Your task to perform on an android device: Do I have any events tomorrow? Image 0: 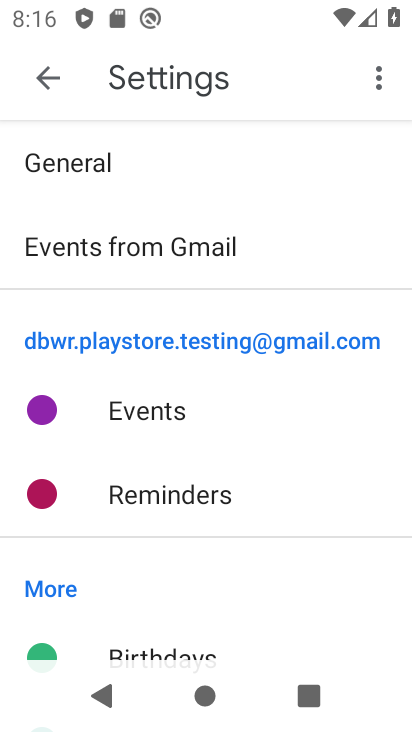
Step 0: press home button
Your task to perform on an android device: Do I have any events tomorrow? Image 1: 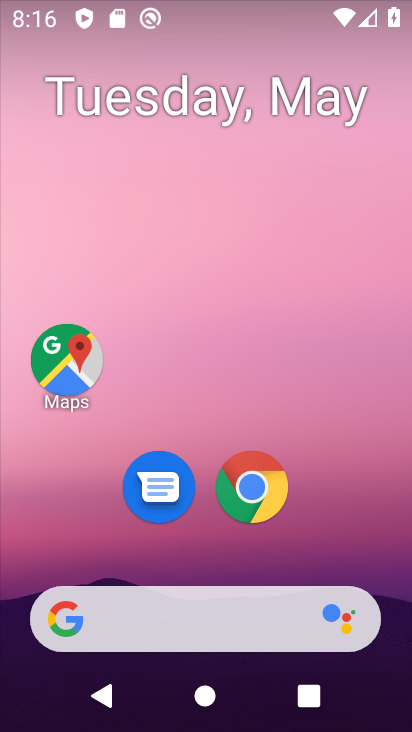
Step 1: drag from (349, 557) to (349, 73)
Your task to perform on an android device: Do I have any events tomorrow? Image 2: 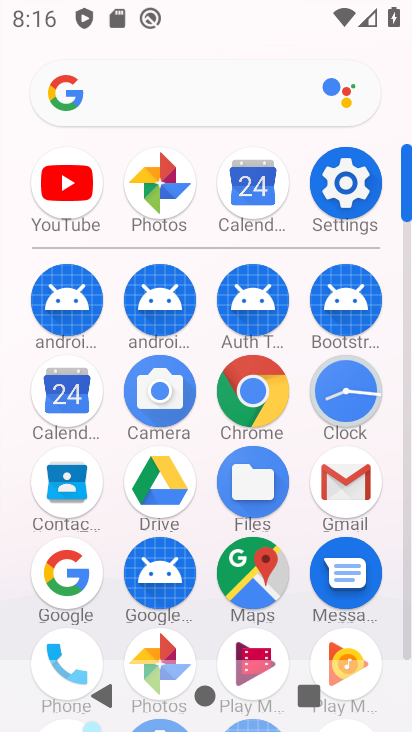
Step 2: click (250, 192)
Your task to perform on an android device: Do I have any events tomorrow? Image 3: 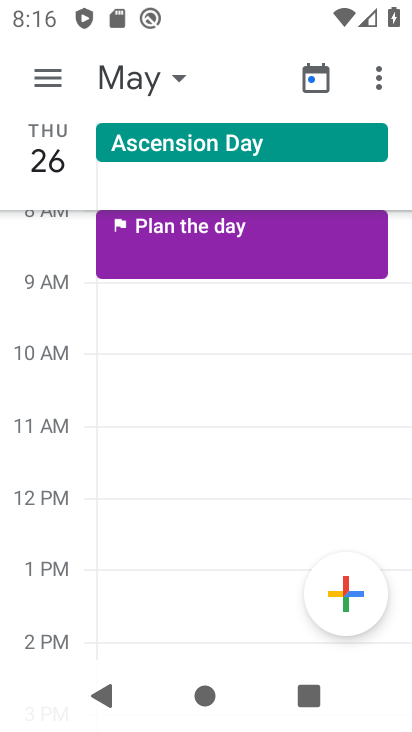
Step 3: click (147, 71)
Your task to perform on an android device: Do I have any events tomorrow? Image 4: 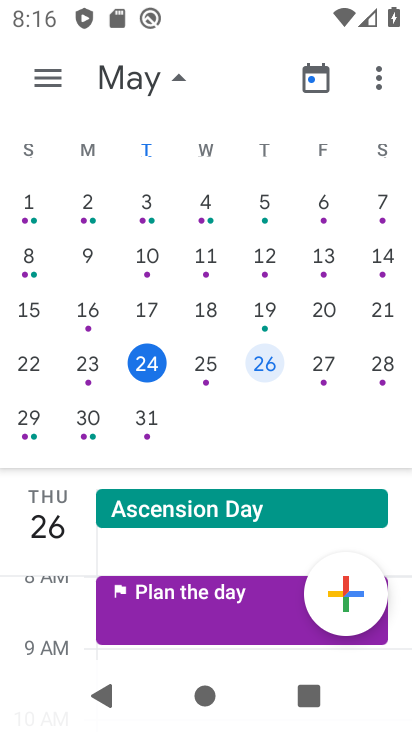
Step 4: click (257, 351)
Your task to perform on an android device: Do I have any events tomorrow? Image 5: 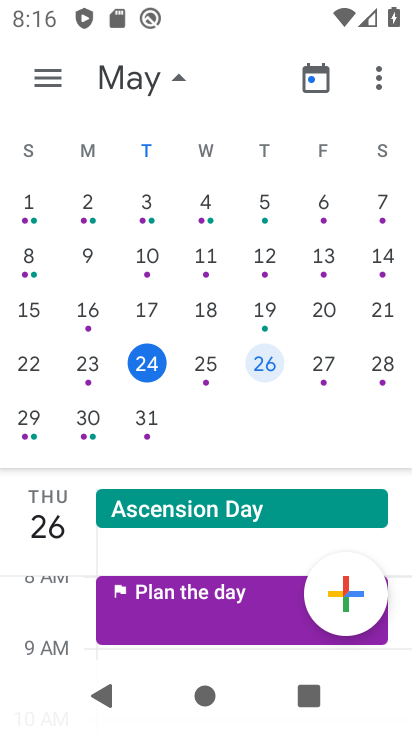
Step 5: drag from (232, 434) to (272, 94)
Your task to perform on an android device: Do I have any events tomorrow? Image 6: 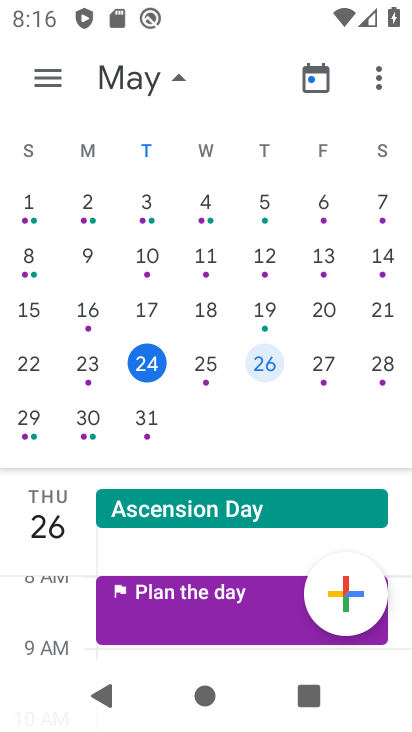
Step 6: drag from (42, 536) to (99, 166)
Your task to perform on an android device: Do I have any events tomorrow? Image 7: 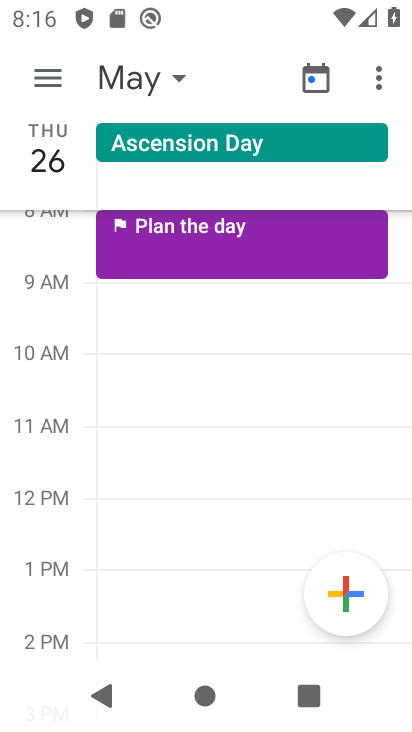
Step 7: drag from (183, 219) to (160, 442)
Your task to perform on an android device: Do I have any events tomorrow? Image 8: 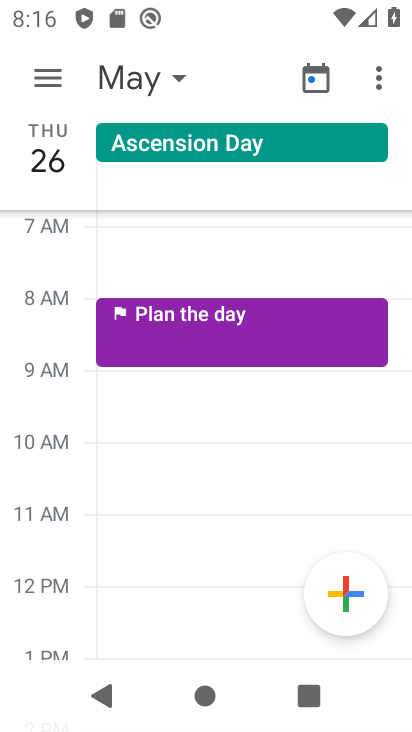
Step 8: click (131, 182)
Your task to perform on an android device: Do I have any events tomorrow? Image 9: 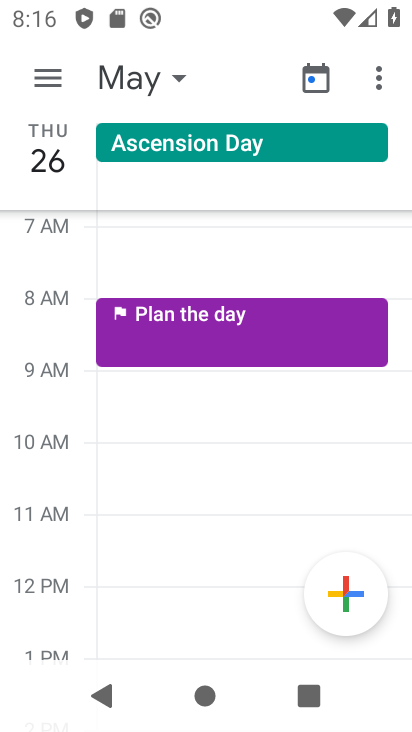
Step 9: task complete